Your task to perform on an android device: Open display settings Image 0: 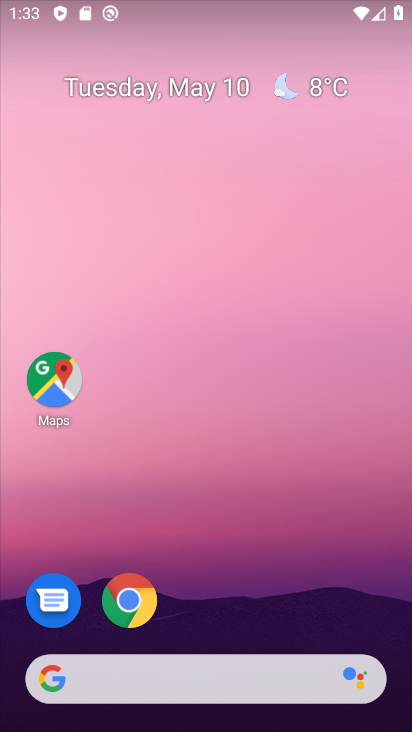
Step 0: drag from (226, 618) to (265, 196)
Your task to perform on an android device: Open display settings Image 1: 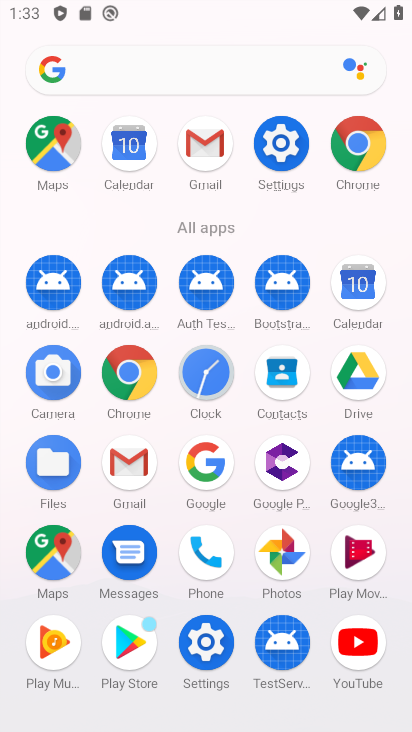
Step 1: click (277, 147)
Your task to perform on an android device: Open display settings Image 2: 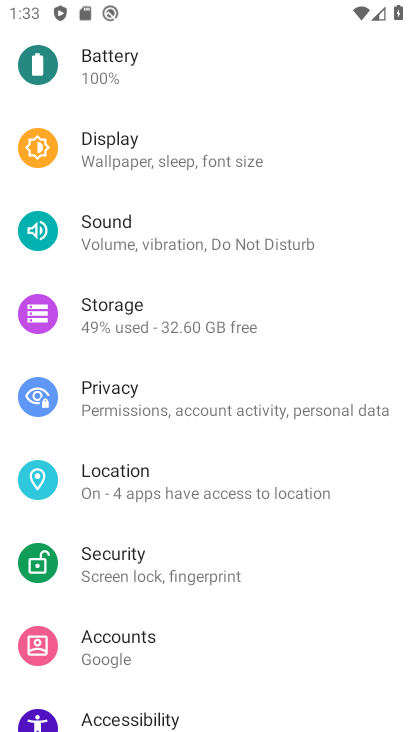
Step 2: click (155, 145)
Your task to perform on an android device: Open display settings Image 3: 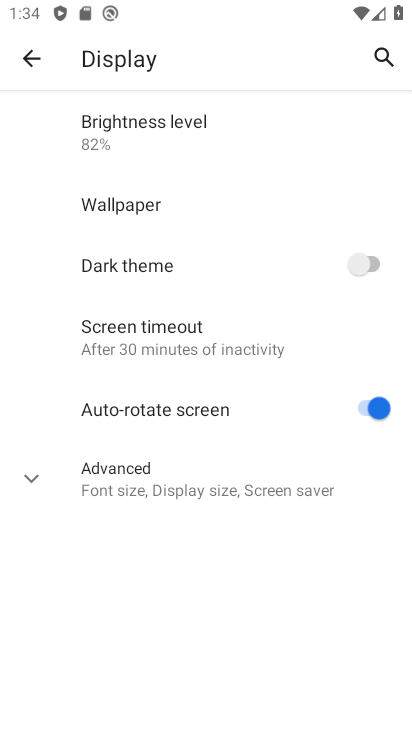
Step 3: click (32, 473)
Your task to perform on an android device: Open display settings Image 4: 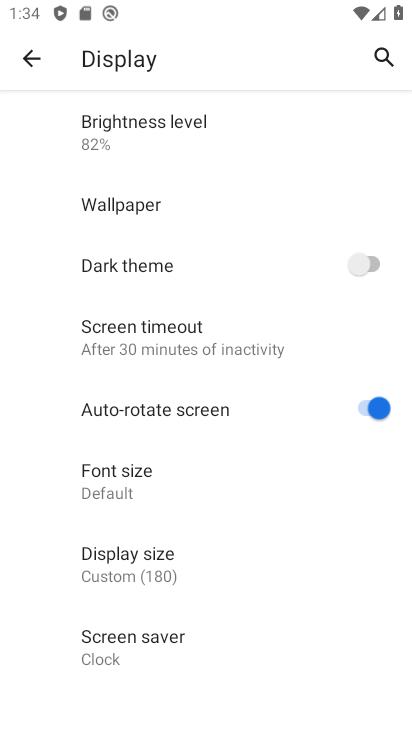
Step 4: task complete